Your task to perform on an android device: all mails in gmail Image 0: 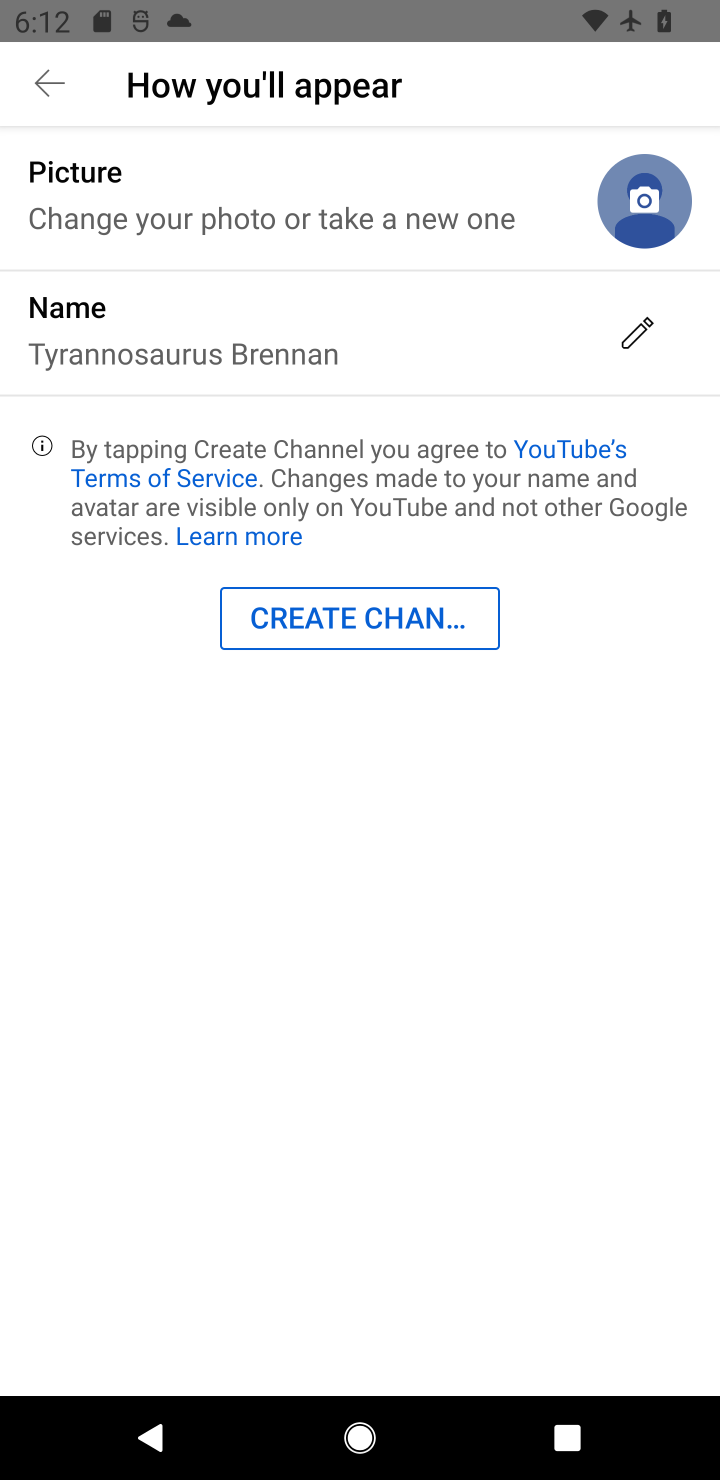
Step 0: press home button
Your task to perform on an android device: all mails in gmail Image 1: 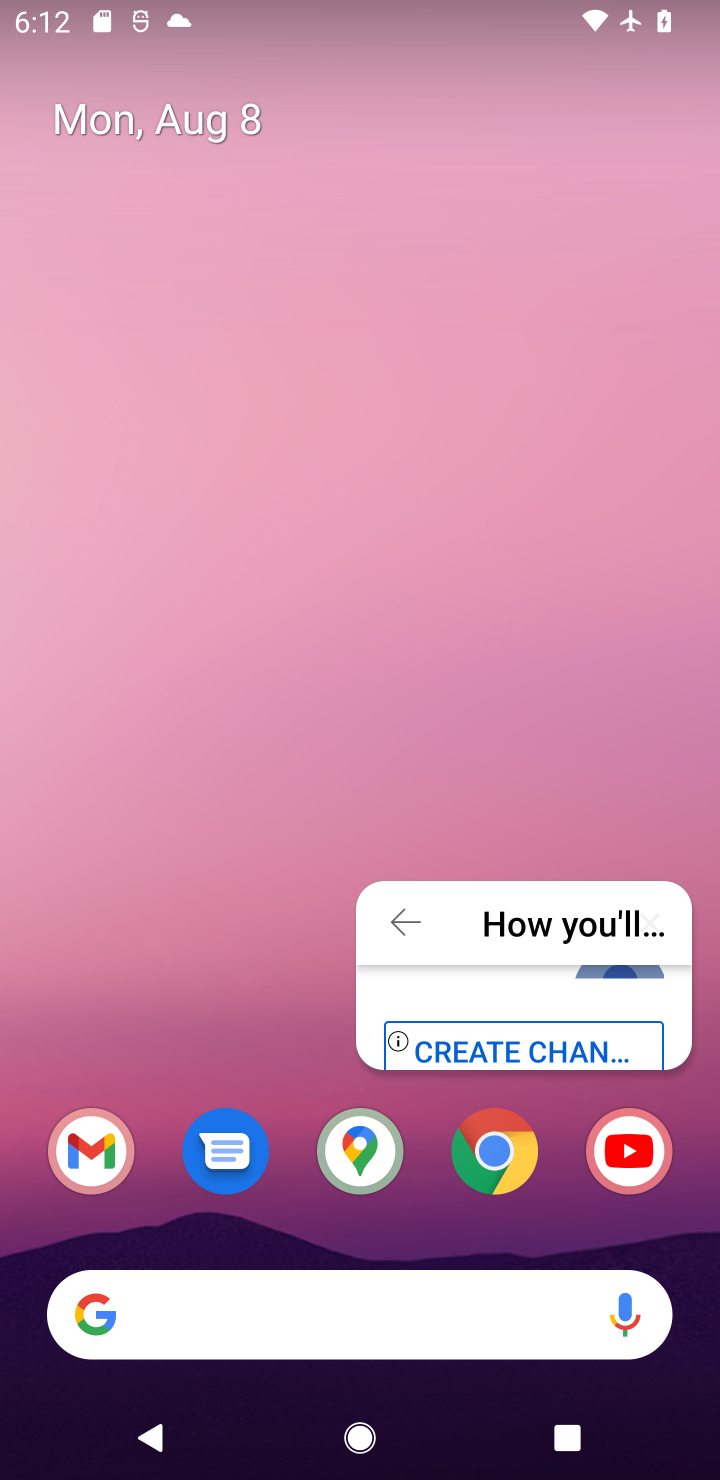
Step 1: drag from (549, 913) to (340, 1270)
Your task to perform on an android device: all mails in gmail Image 2: 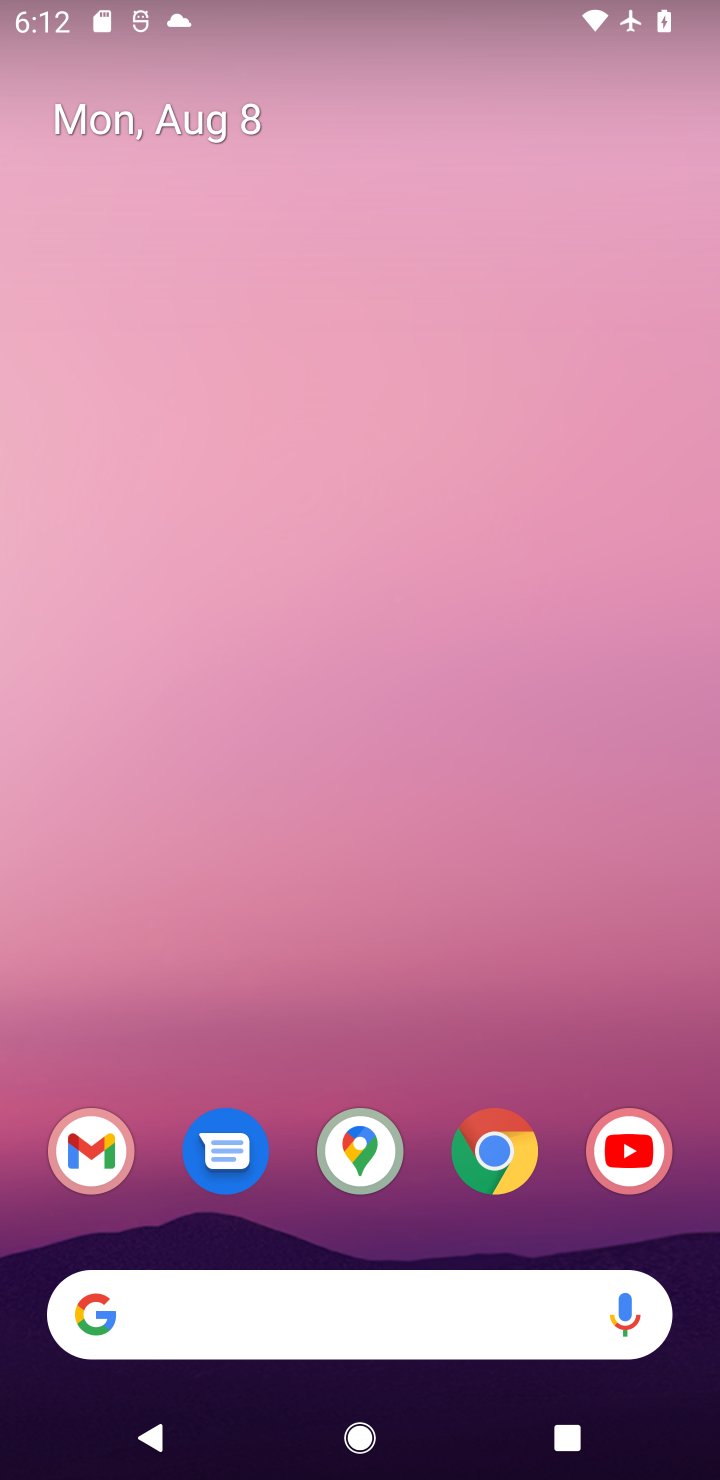
Step 2: click (340, 950)
Your task to perform on an android device: all mails in gmail Image 3: 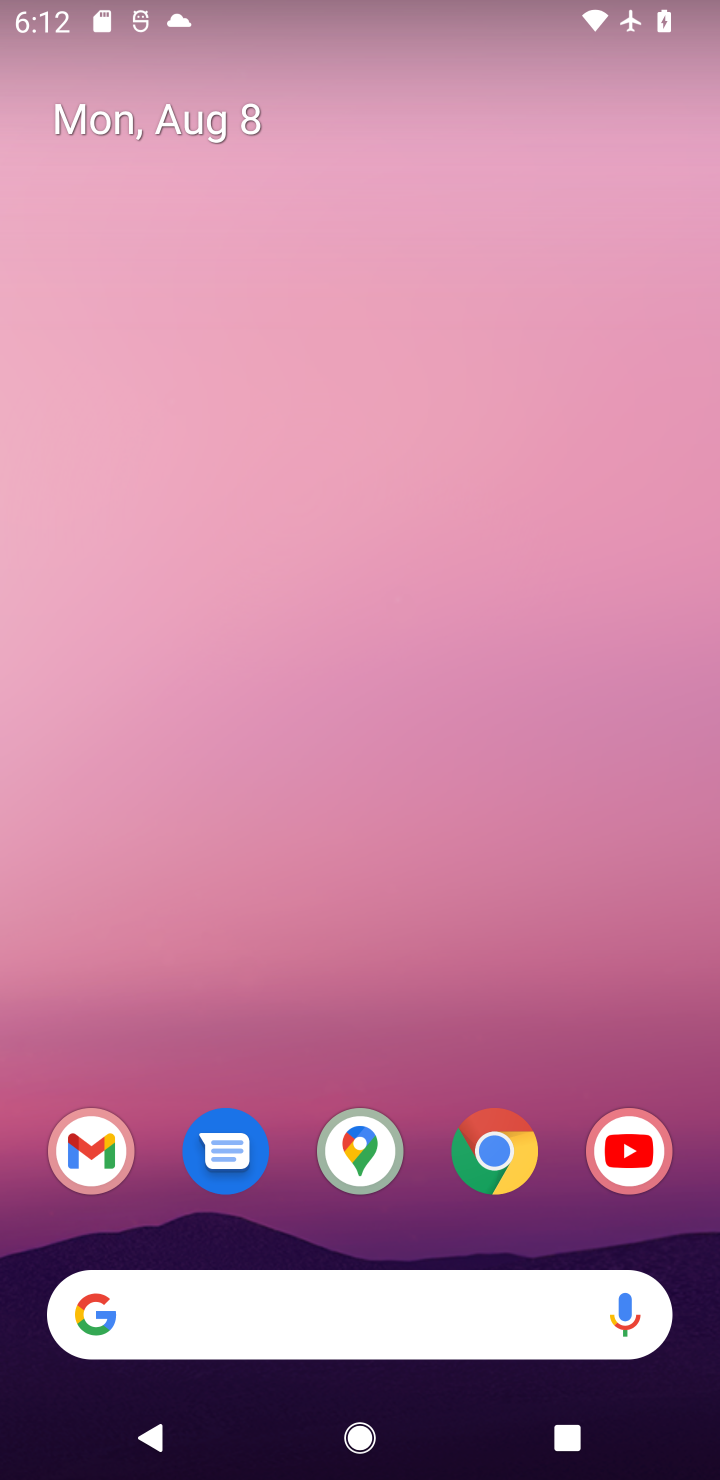
Step 3: click (81, 1143)
Your task to perform on an android device: all mails in gmail Image 4: 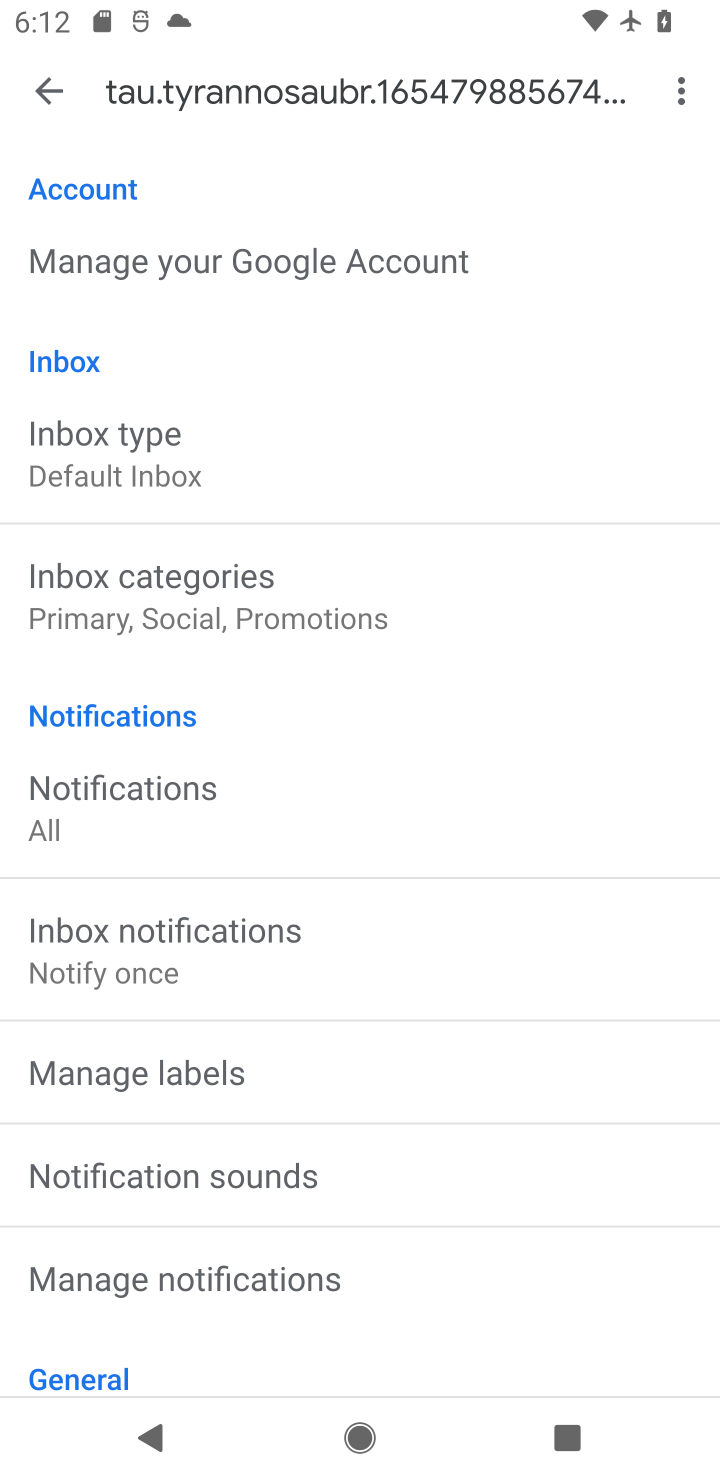
Step 4: click (279, 1106)
Your task to perform on an android device: all mails in gmail Image 5: 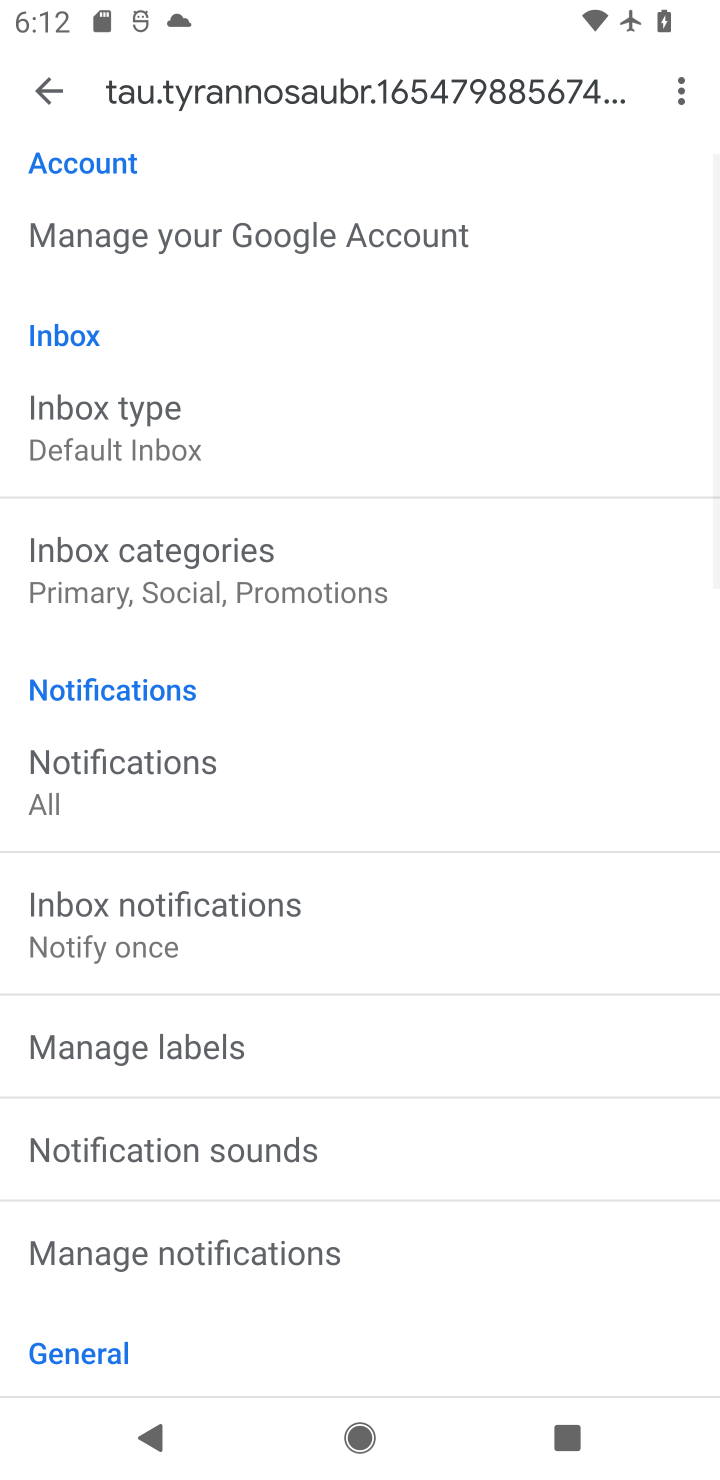
Step 5: click (49, 85)
Your task to perform on an android device: all mails in gmail Image 6: 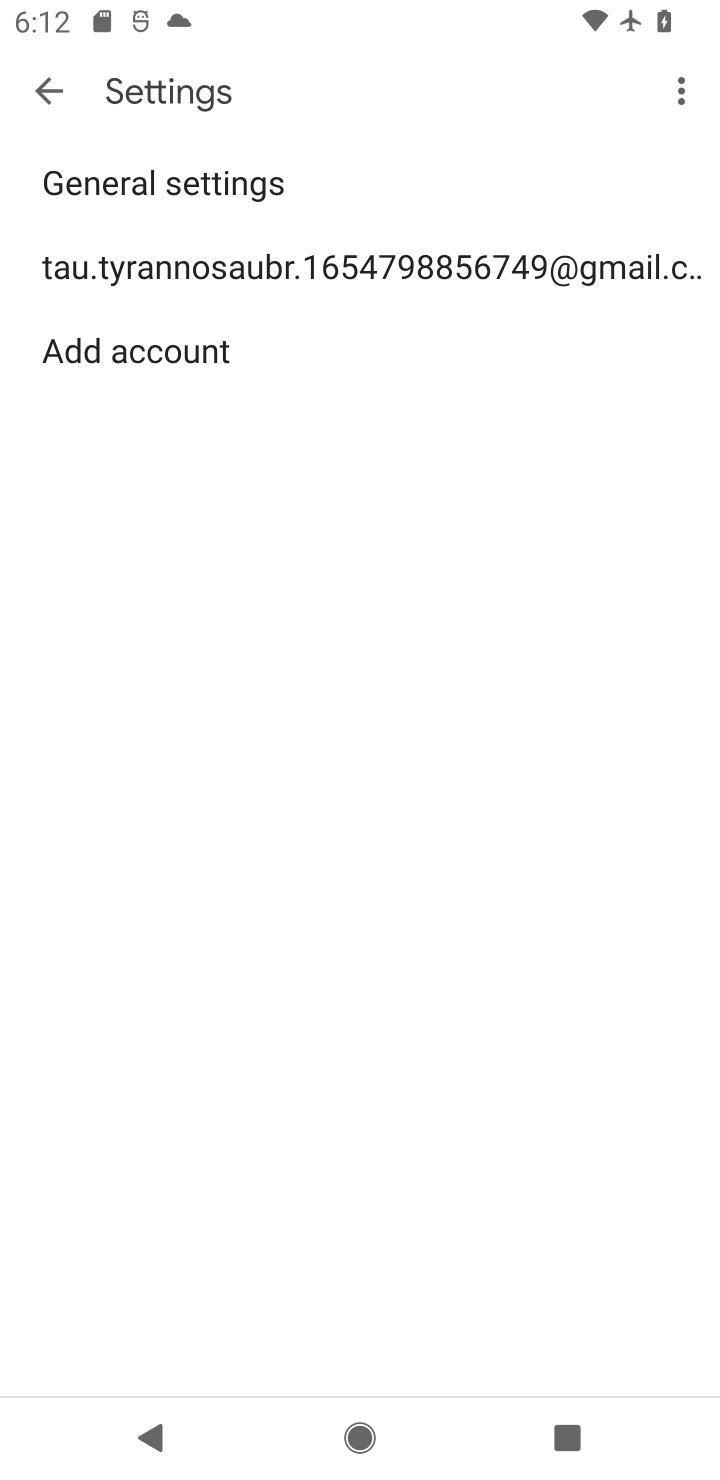
Step 6: click (49, 85)
Your task to perform on an android device: all mails in gmail Image 7: 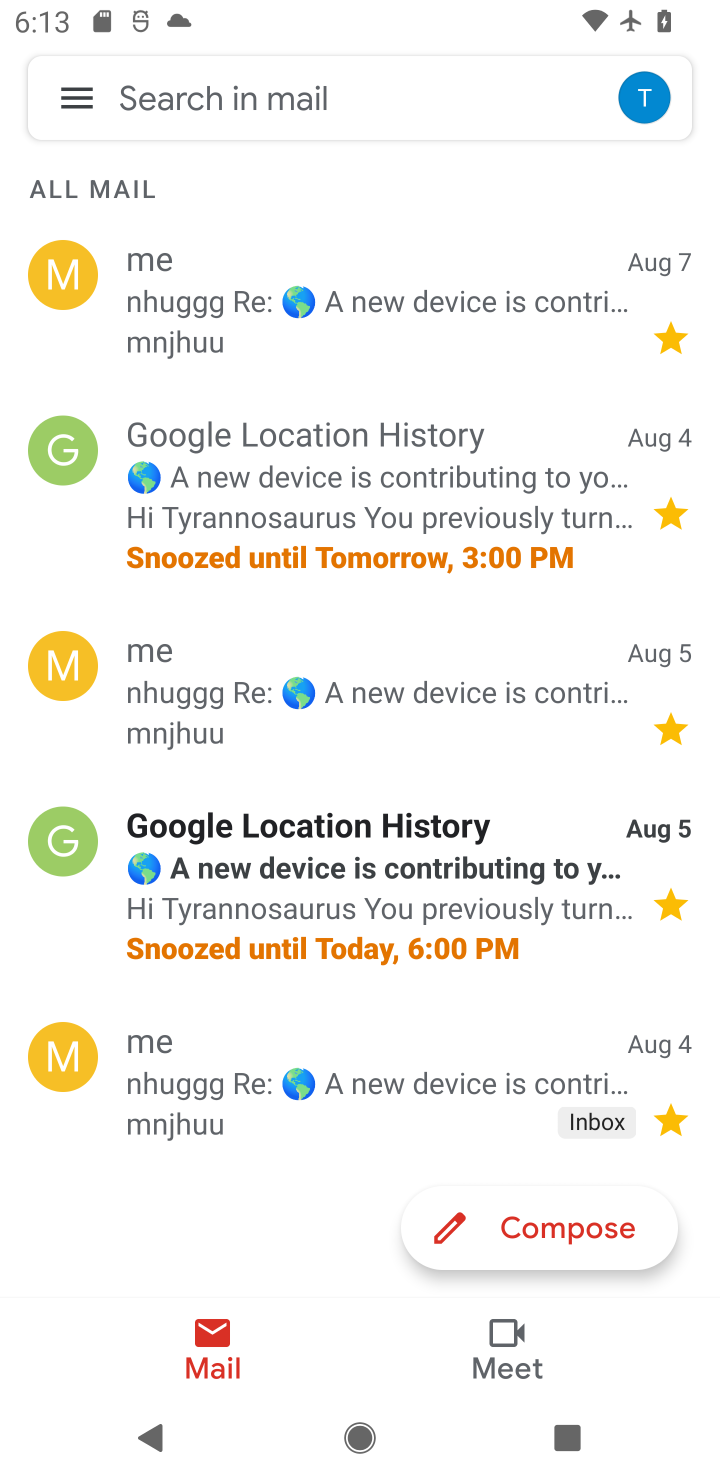
Step 7: click (66, 91)
Your task to perform on an android device: all mails in gmail Image 8: 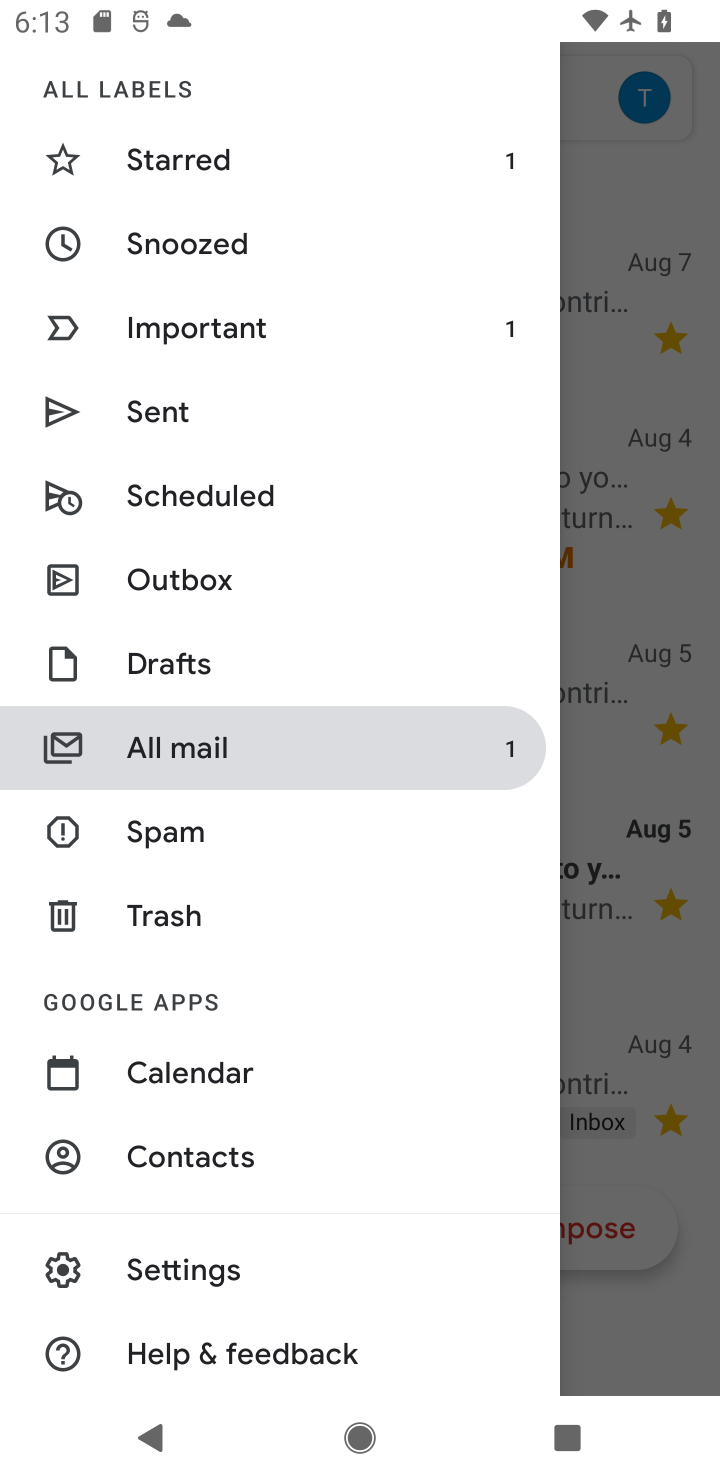
Step 8: task complete